Your task to perform on an android device: turn on bluetooth scan Image 0: 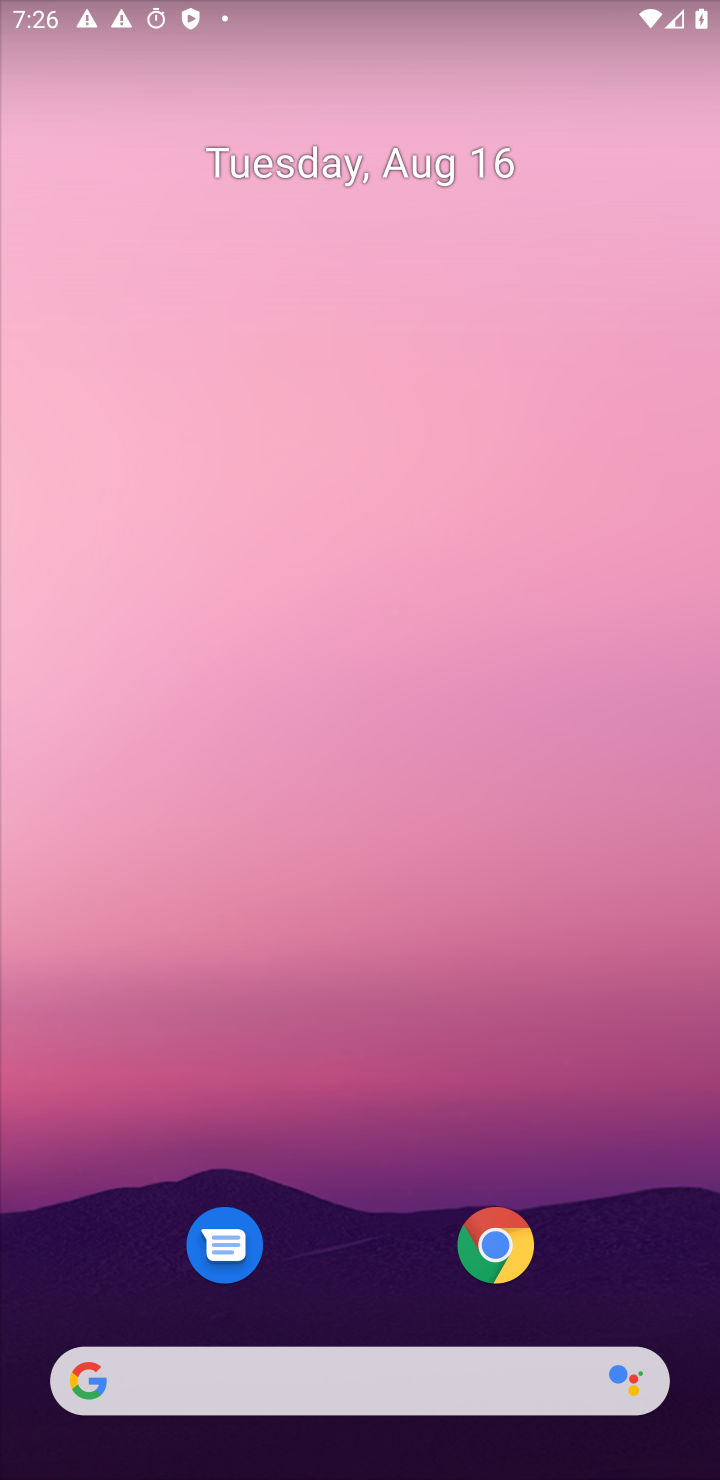
Step 0: press home button
Your task to perform on an android device: turn on bluetooth scan Image 1: 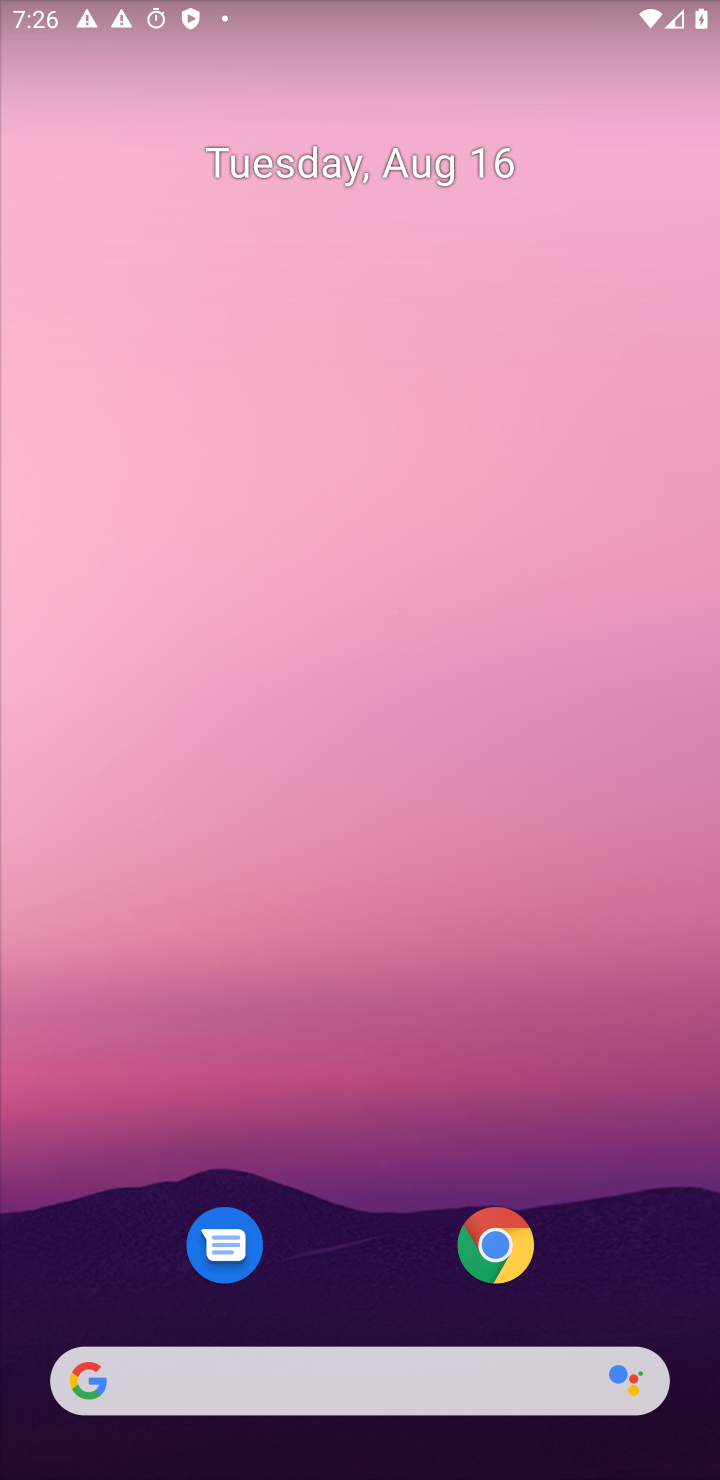
Step 1: drag from (359, 1236) to (358, 256)
Your task to perform on an android device: turn on bluetooth scan Image 2: 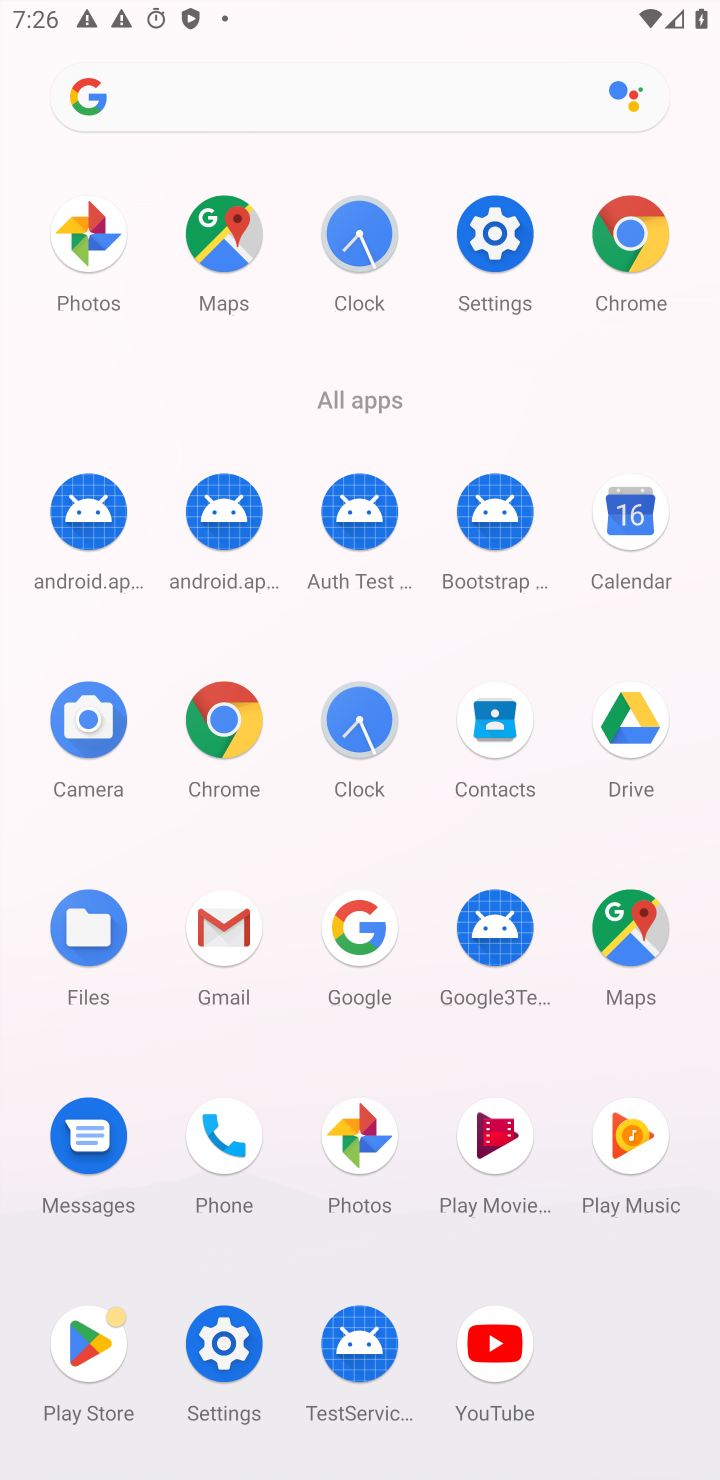
Step 2: click (509, 253)
Your task to perform on an android device: turn on bluetooth scan Image 3: 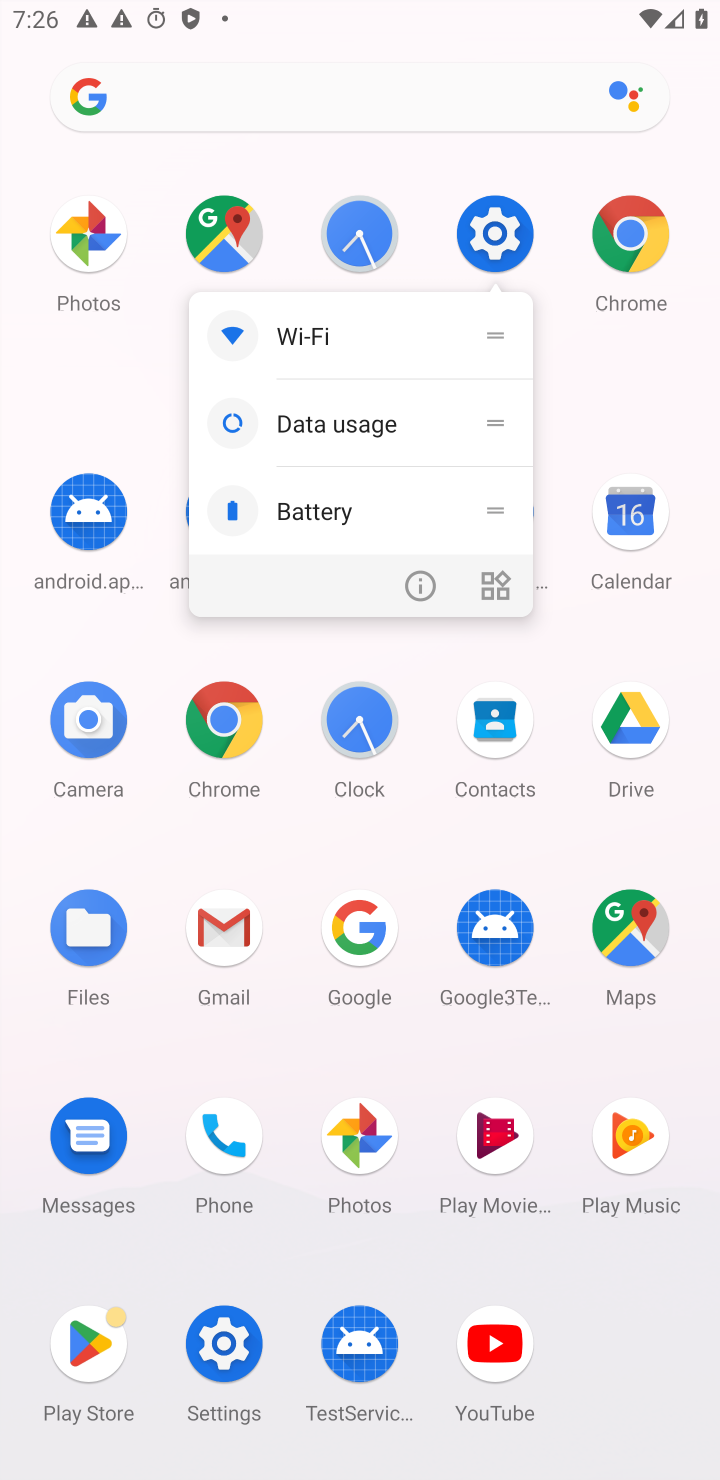
Step 3: click (497, 230)
Your task to perform on an android device: turn on bluetooth scan Image 4: 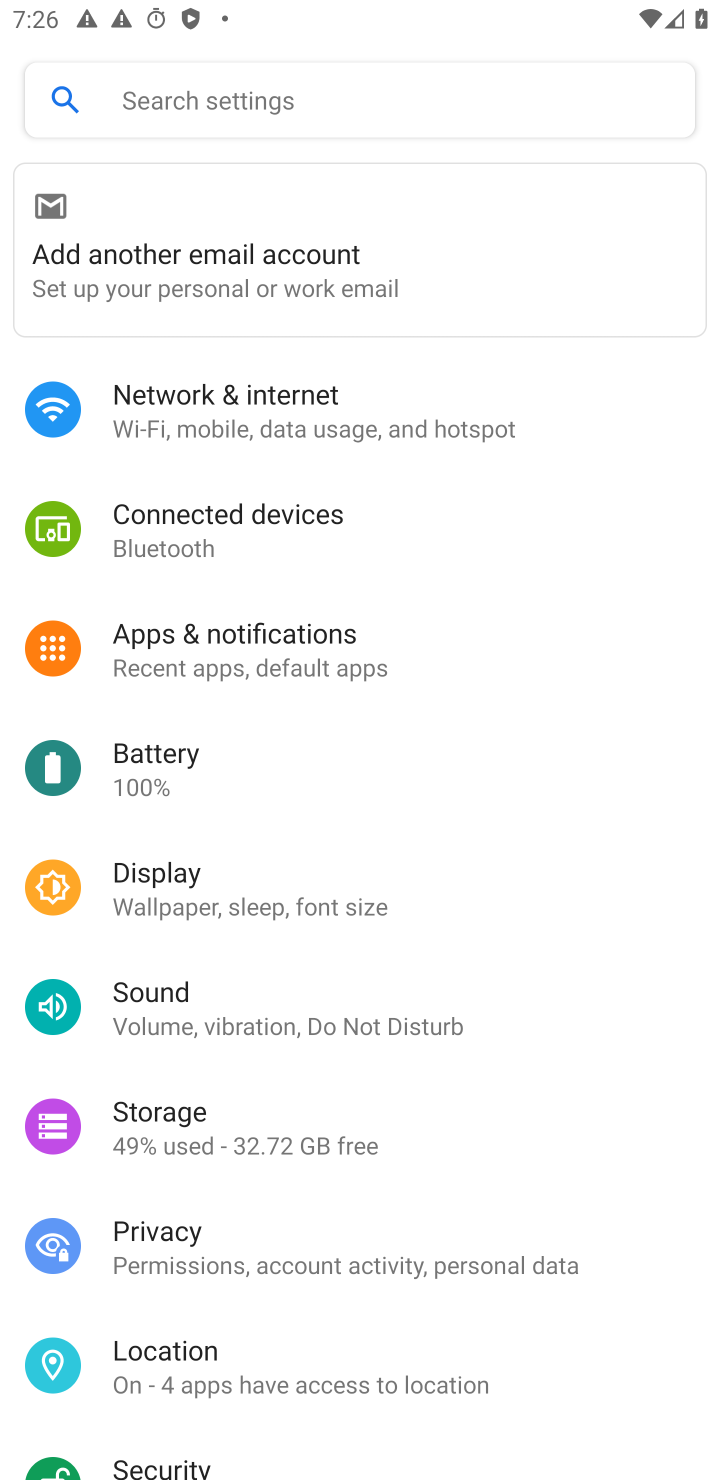
Step 4: drag from (242, 1313) to (284, 756)
Your task to perform on an android device: turn on bluetooth scan Image 5: 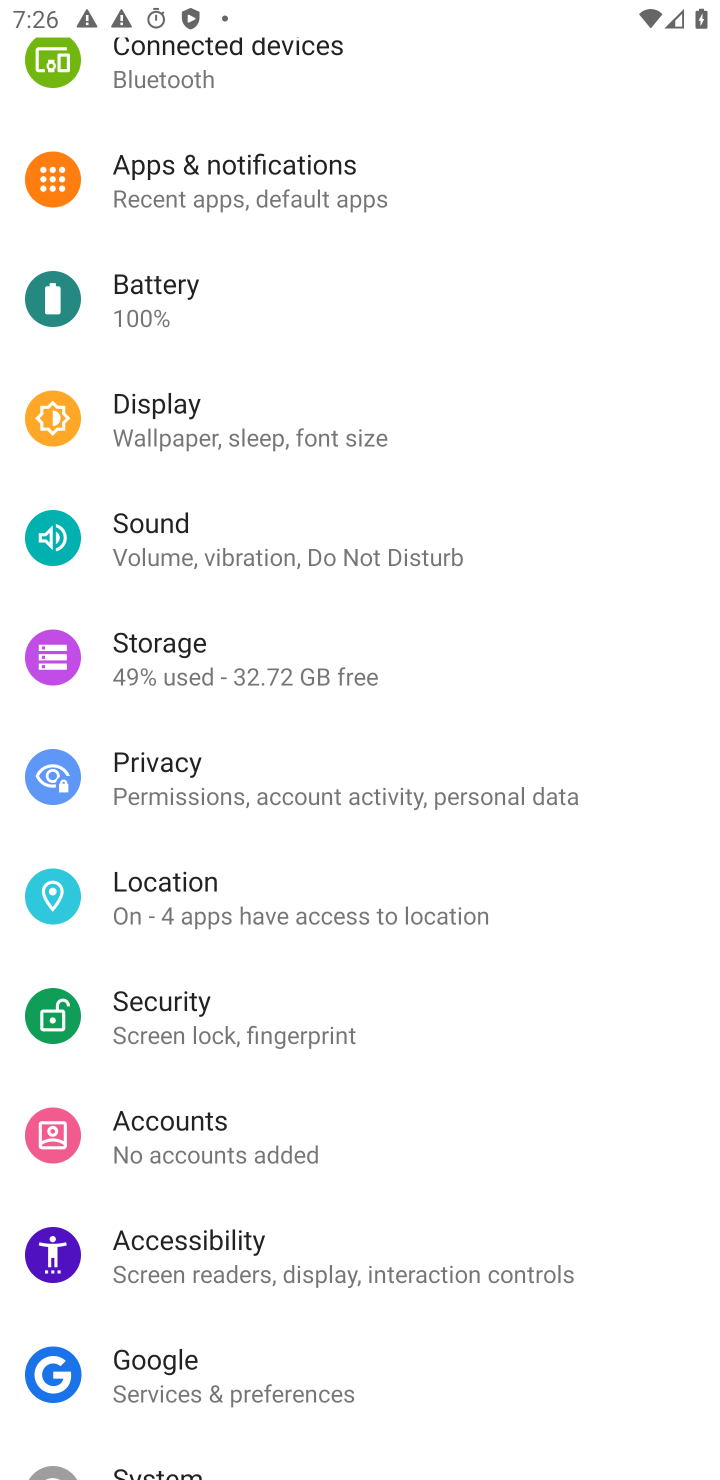
Step 5: click (293, 893)
Your task to perform on an android device: turn on bluetooth scan Image 6: 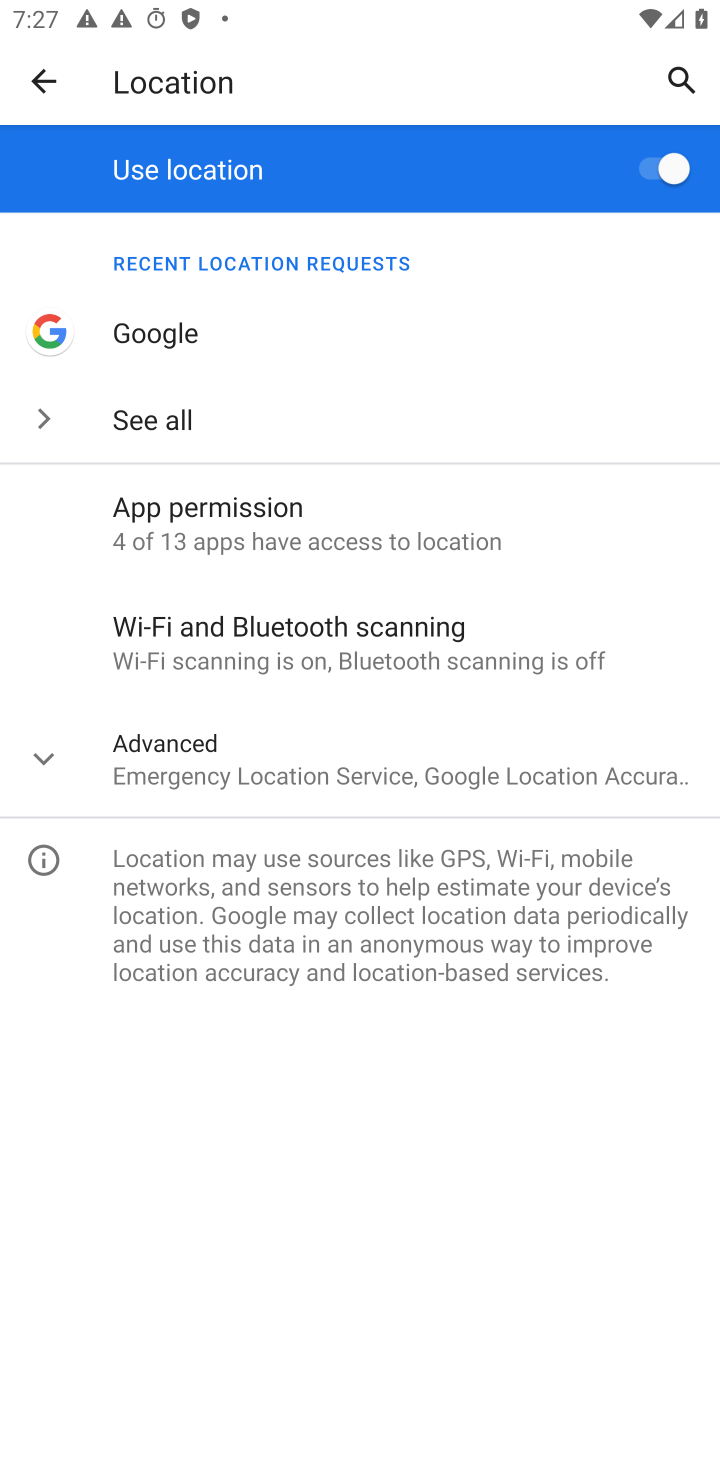
Step 6: click (517, 626)
Your task to perform on an android device: turn on bluetooth scan Image 7: 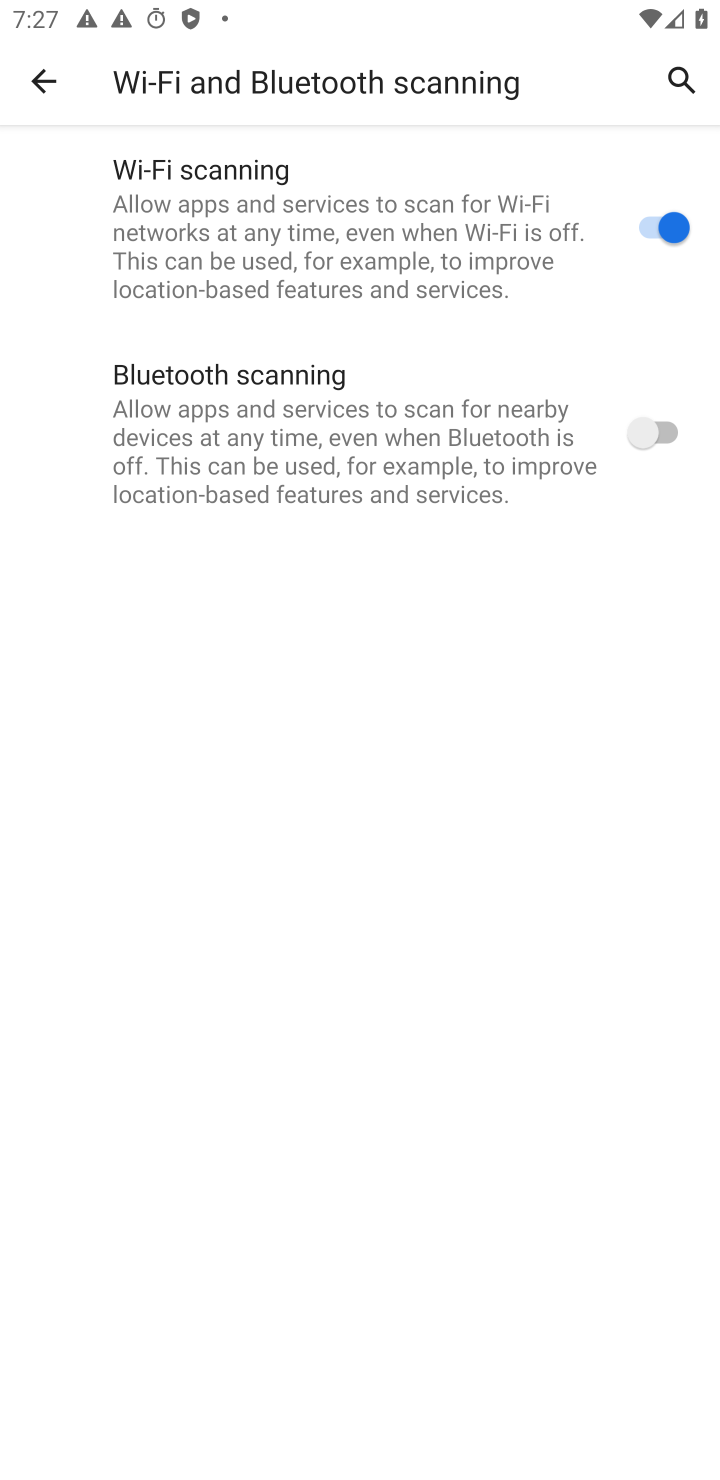
Step 7: click (648, 429)
Your task to perform on an android device: turn on bluetooth scan Image 8: 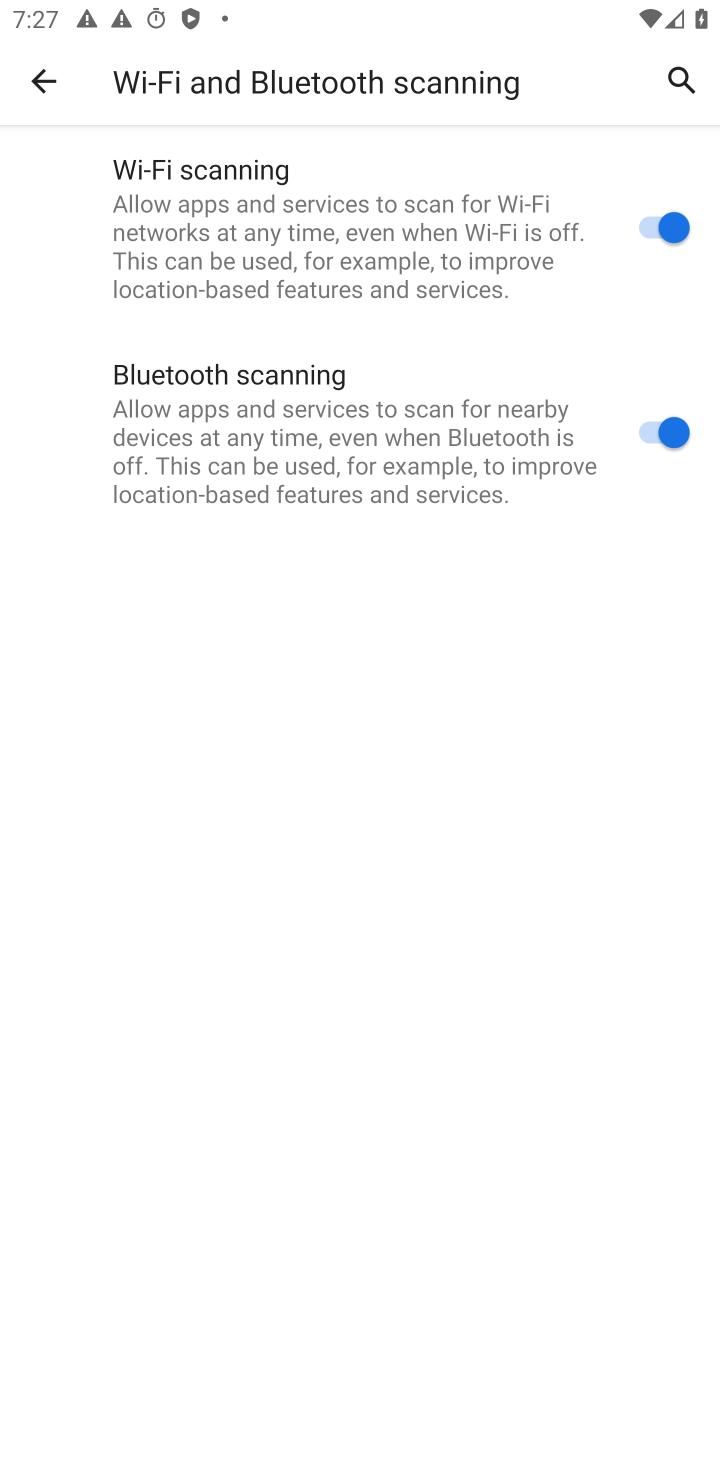
Step 8: task complete